Your task to perform on an android device: Do I have any events tomorrow? Image 0: 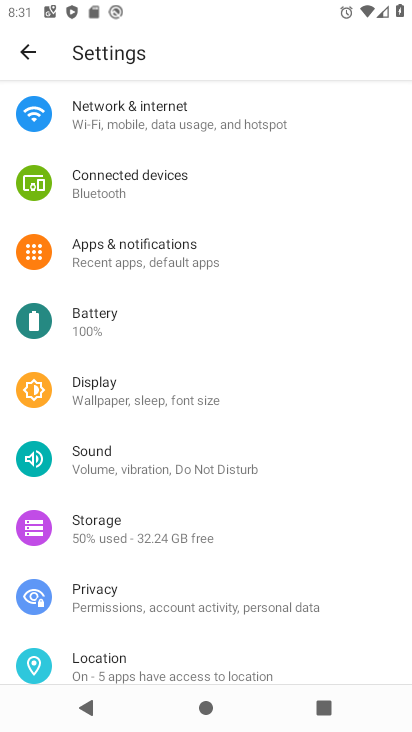
Step 0: press home button
Your task to perform on an android device: Do I have any events tomorrow? Image 1: 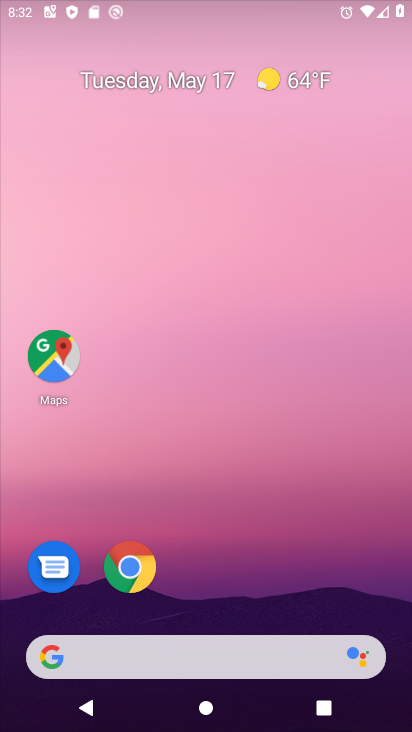
Step 1: drag from (353, 582) to (262, 62)
Your task to perform on an android device: Do I have any events tomorrow? Image 2: 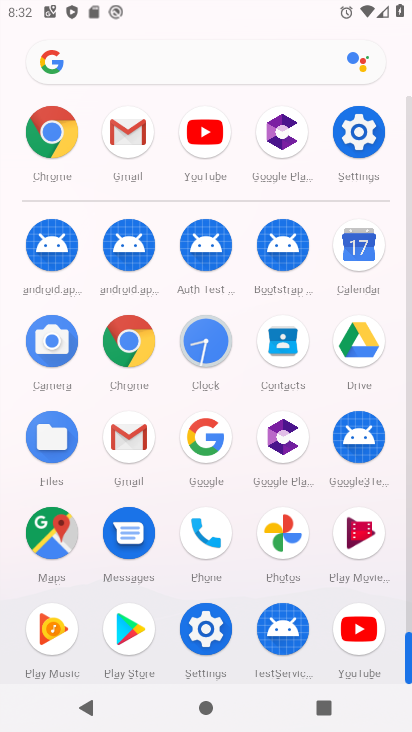
Step 2: click (363, 258)
Your task to perform on an android device: Do I have any events tomorrow? Image 3: 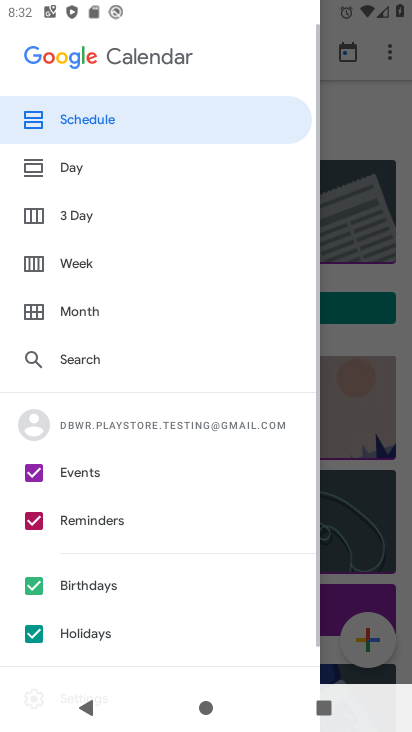
Step 3: press back button
Your task to perform on an android device: Do I have any events tomorrow? Image 4: 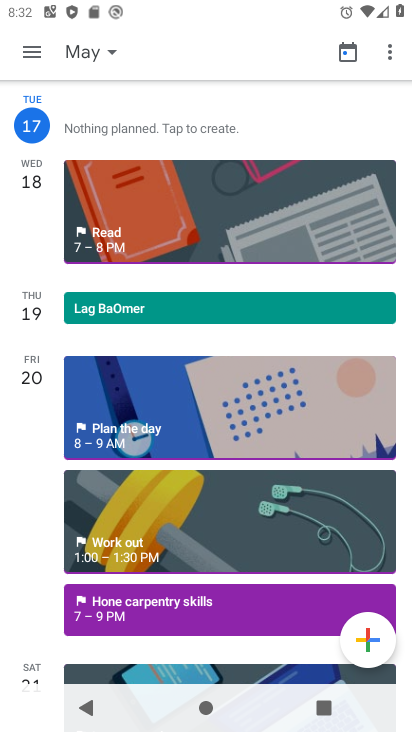
Step 4: click (84, 46)
Your task to perform on an android device: Do I have any events tomorrow? Image 5: 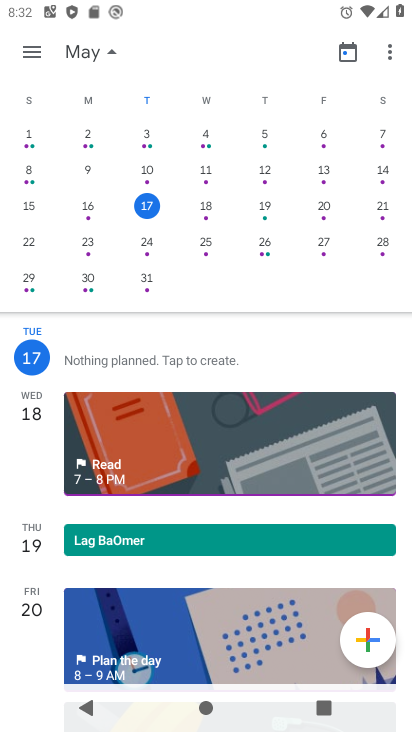
Step 5: click (266, 207)
Your task to perform on an android device: Do I have any events tomorrow? Image 6: 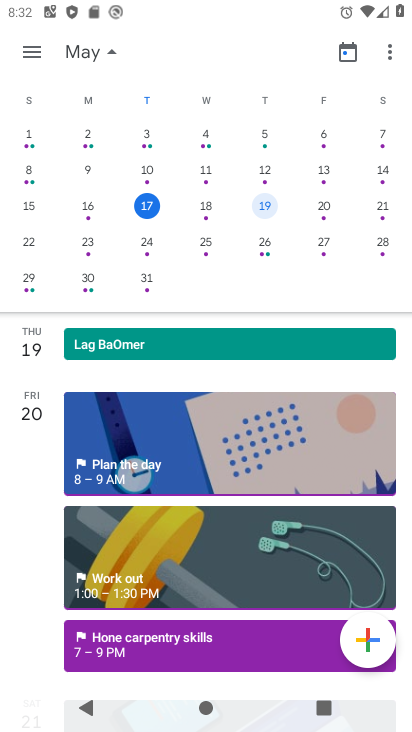
Step 6: task complete